Your task to perform on an android device: toggle pop-ups in chrome Image 0: 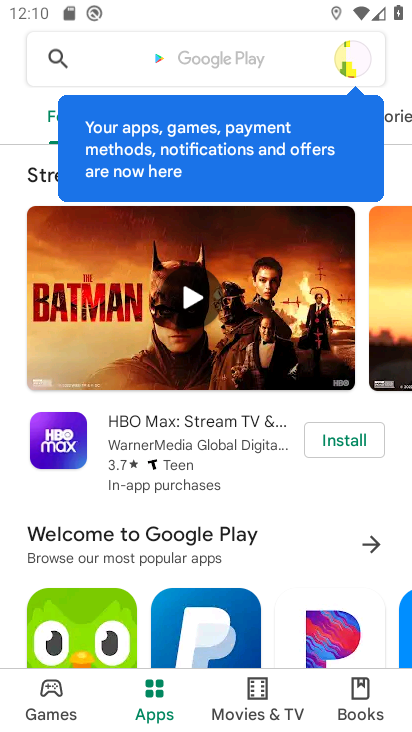
Step 0: press home button
Your task to perform on an android device: toggle pop-ups in chrome Image 1: 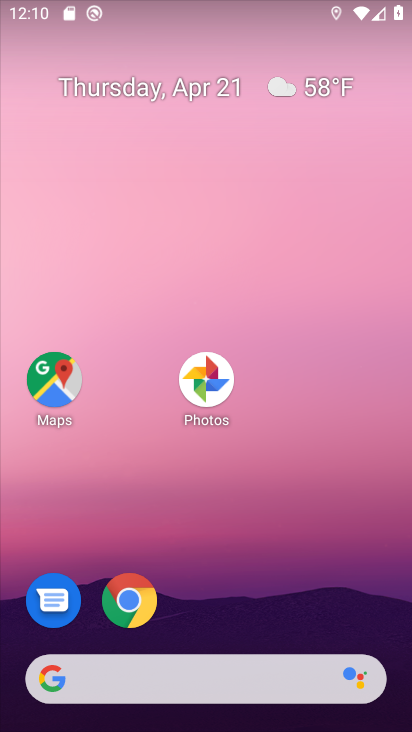
Step 1: drag from (220, 638) to (151, 27)
Your task to perform on an android device: toggle pop-ups in chrome Image 2: 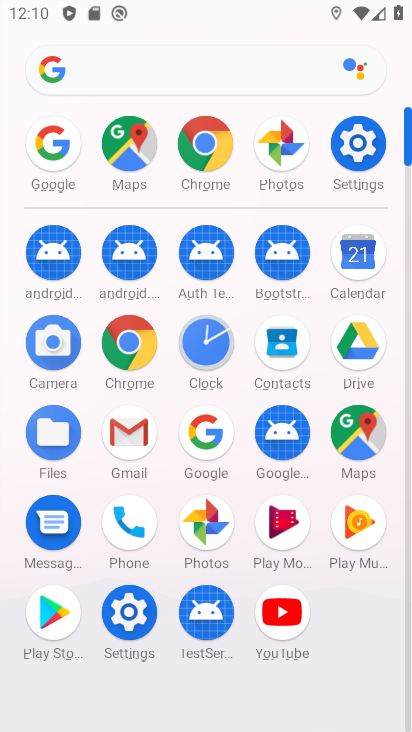
Step 2: click (202, 152)
Your task to perform on an android device: toggle pop-ups in chrome Image 3: 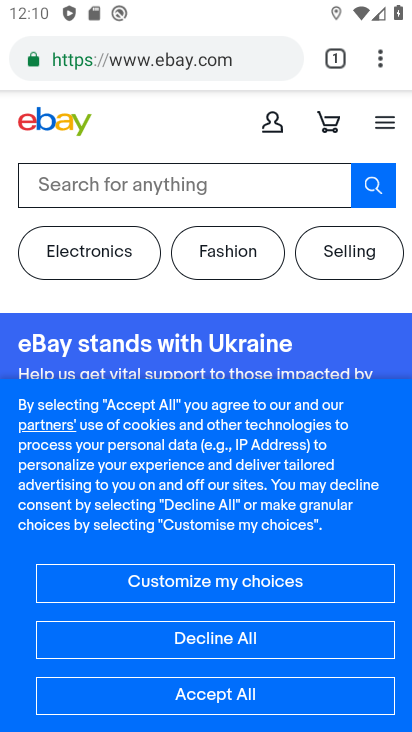
Step 3: drag from (379, 62) to (243, 643)
Your task to perform on an android device: toggle pop-ups in chrome Image 4: 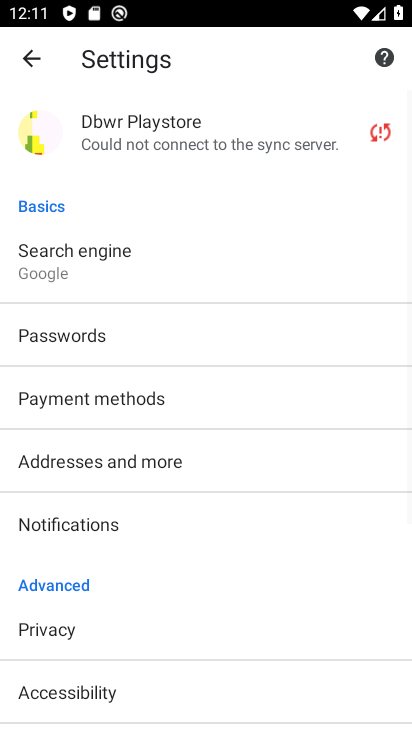
Step 4: drag from (167, 634) to (142, 269)
Your task to perform on an android device: toggle pop-ups in chrome Image 5: 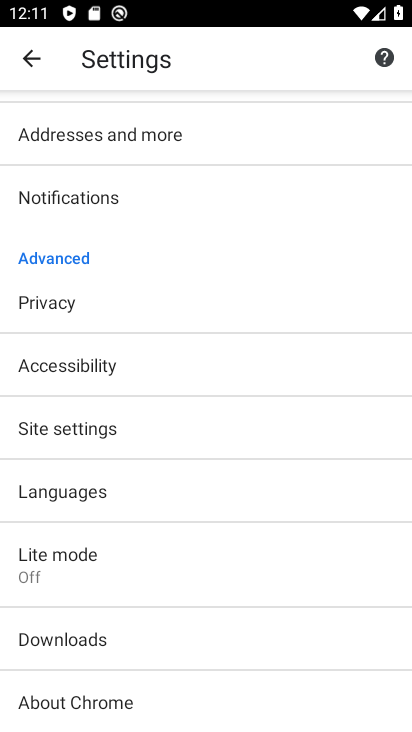
Step 5: click (97, 435)
Your task to perform on an android device: toggle pop-ups in chrome Image 6: 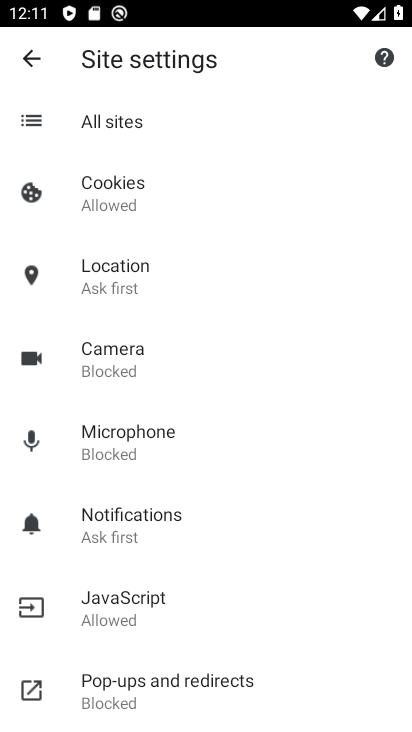
Step 6: drag from (166, 624) to (157, 408)
Your task to perform on an android device: toggle pop-ups in chrome Image 7: 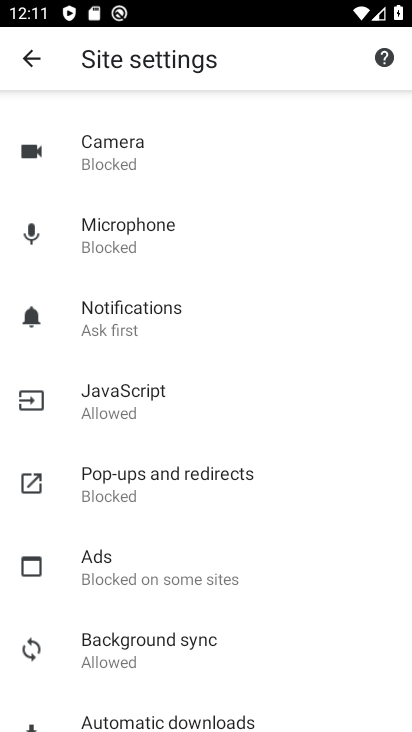
Step 7: click (150, 475)
Your task to perform on an android device: toggle pop-ups in chrome Image 8: 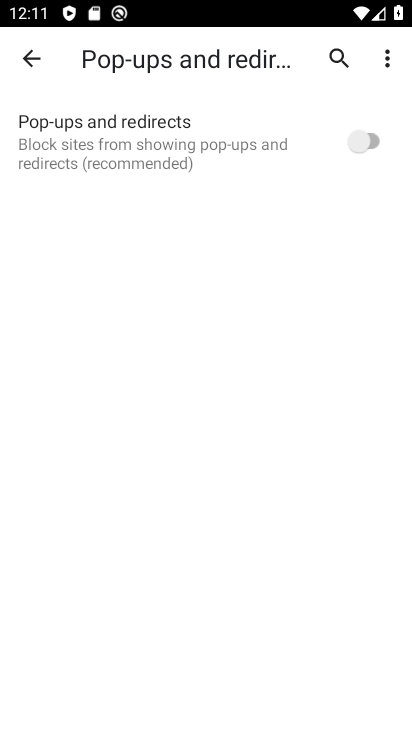
Step 8: click (360, 144)
Your task to perform on an android device: toggle pop-ups in chrome Image 9: 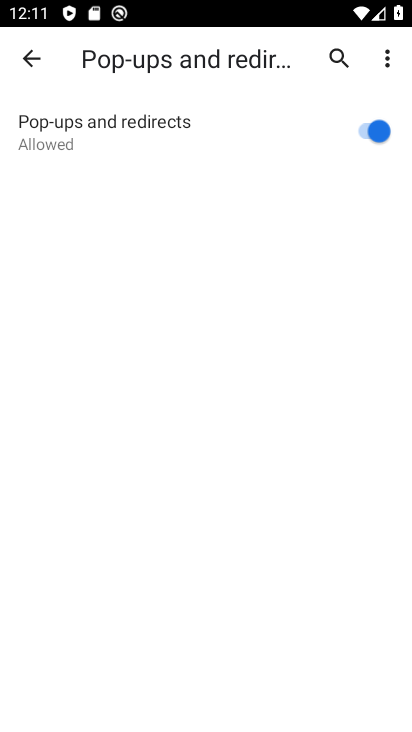
Step 9: task complete